Your task to perform on an android device: turn off wifi Image 0: 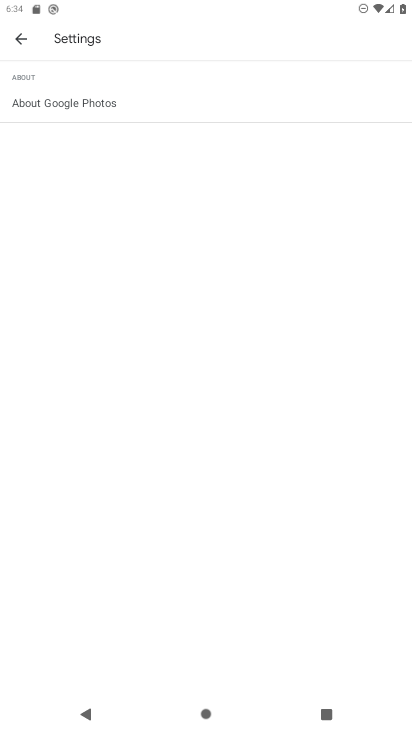
Step 0: press home button
Your task to perform on an android device: turn off wifi Image 1: 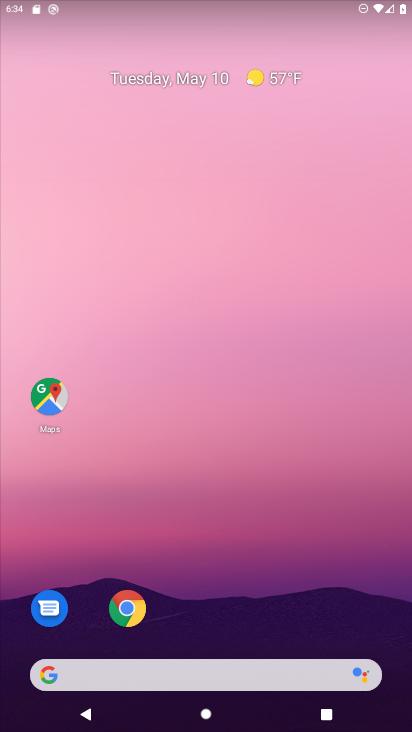
Step 1: drag from (211, 5) to (234, 412)
Your task to perform on an android device: turn off wifi Image 2: 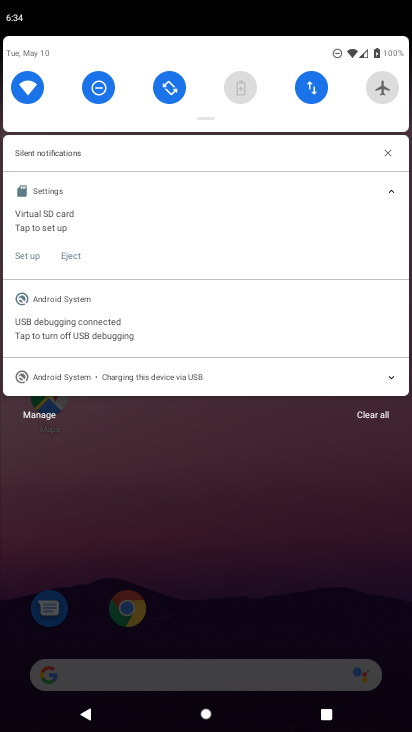
Step 2: click (27, 86)
Your task to perform on an android device: turn off wifi Image 3: 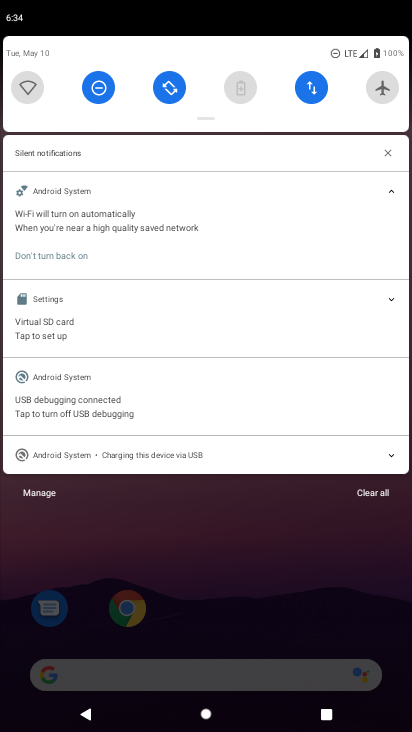
Step 3: task complete